Your task to perform on an android device: Search for the best selling video games at Target Image 0: 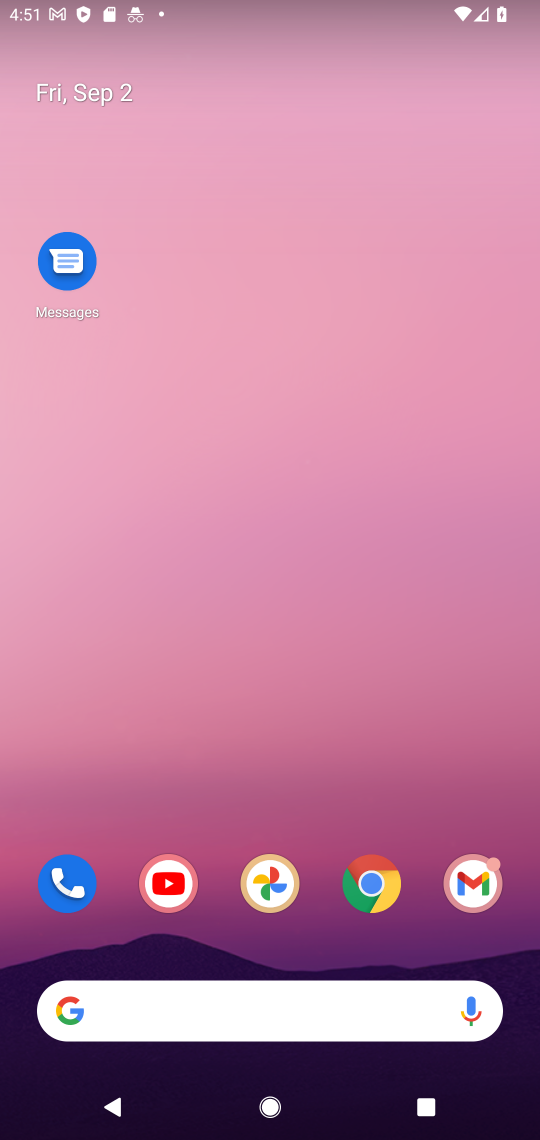
Step 0: drag from (238, 779) to (87, 0)
Your task to perform on an android device: Search for the best selling video games at Target Image 1: 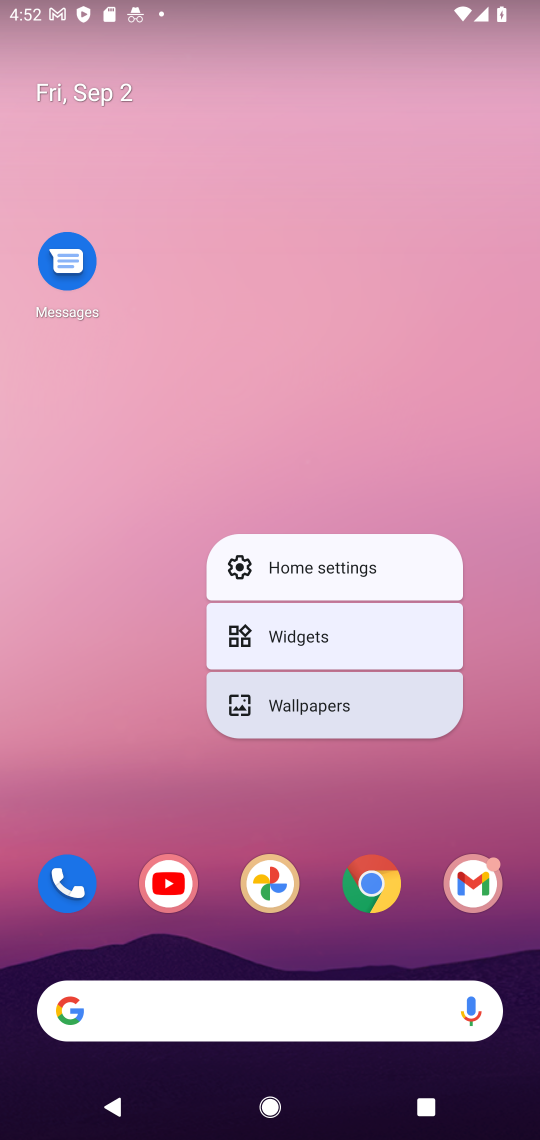
Step 1: drag from (60, 666) to (414, 26)
Your task to perform on an android device: Search for the best selling video games at Target Image 2: 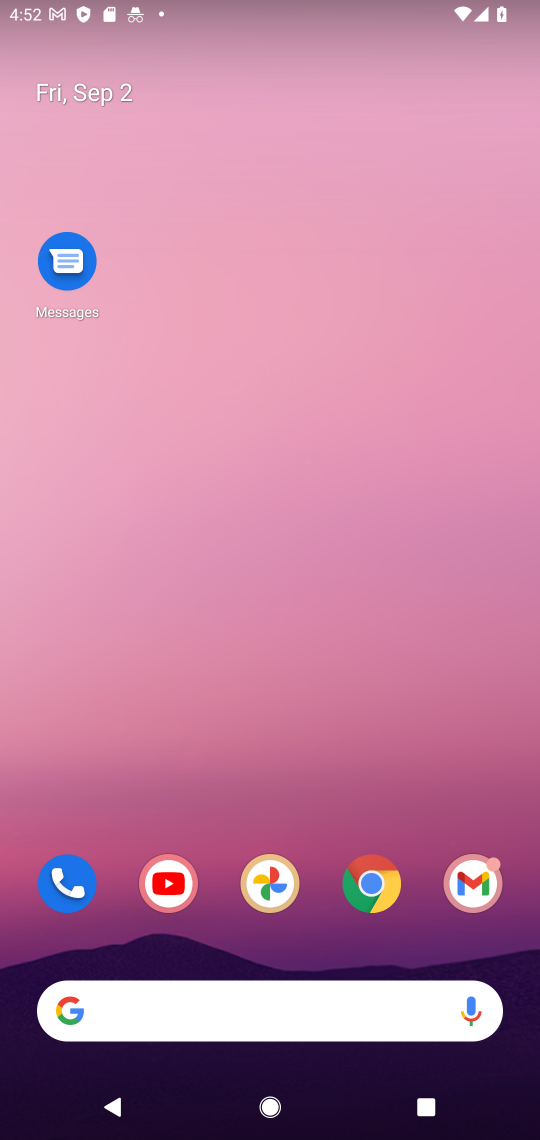
Step 2: drag from (169, 438) to (414, 0)
Your task to perform on an android device: Search for the best selling video games at Target Image 3: 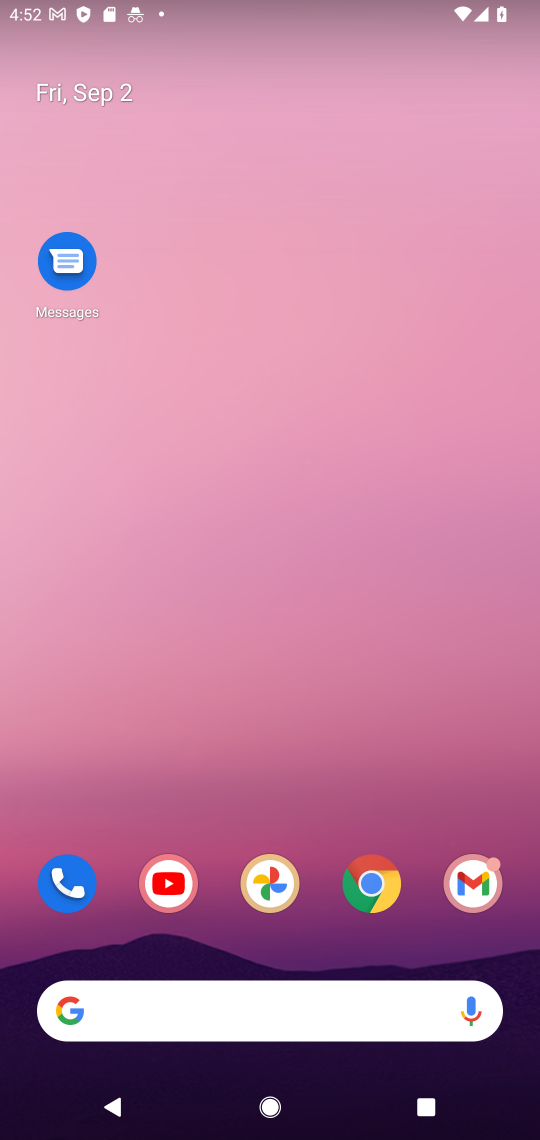
Step 3: click (357, 891)
Your task to perform on an android device: Search for the best selling video games at Target Image 4: 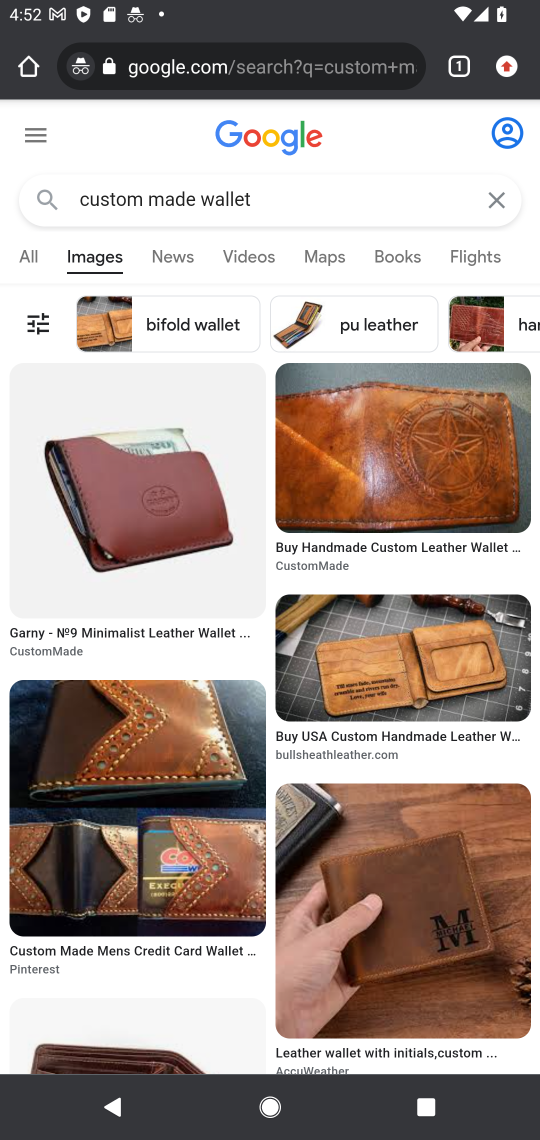
Step 4: drag from (390, 237) to (399, 0)
Your task to perform on an android device: Search for the best selling video games at Target Image 5: 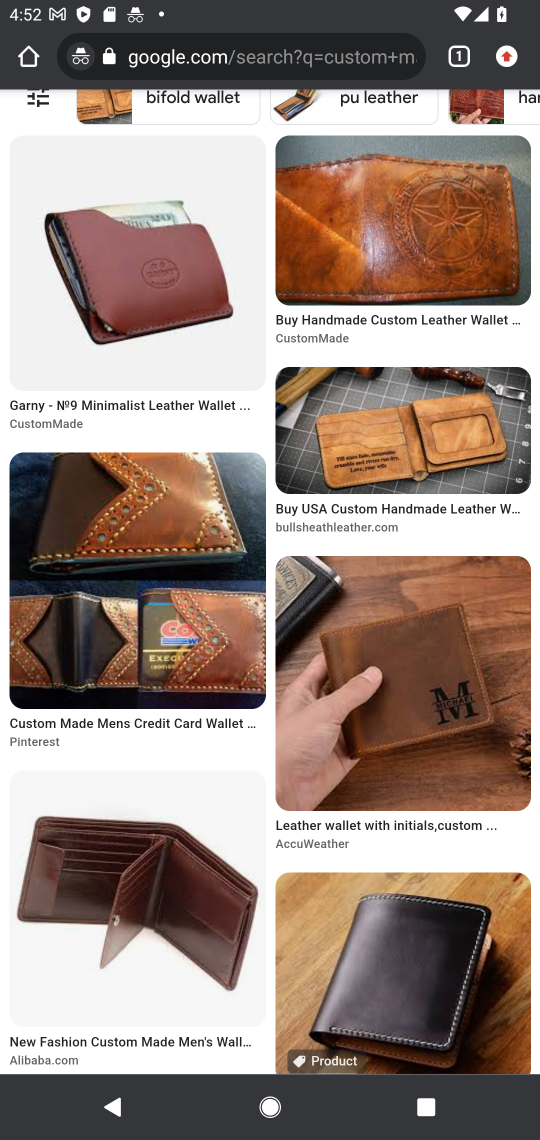
Step 5: click (210, 60)
Your task to perform on an android device: Search for the best selling video games at Target Image 6: 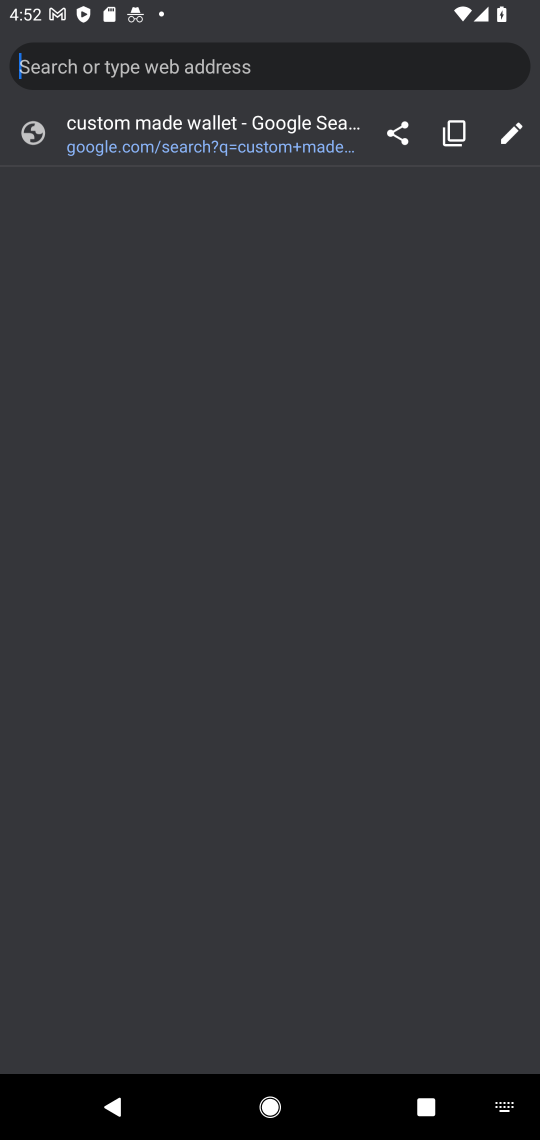
Step 6: drag from (264, 71) to (325, 59)
Your task to perform on an android device: Search for the best selling video games at Target Image 7: 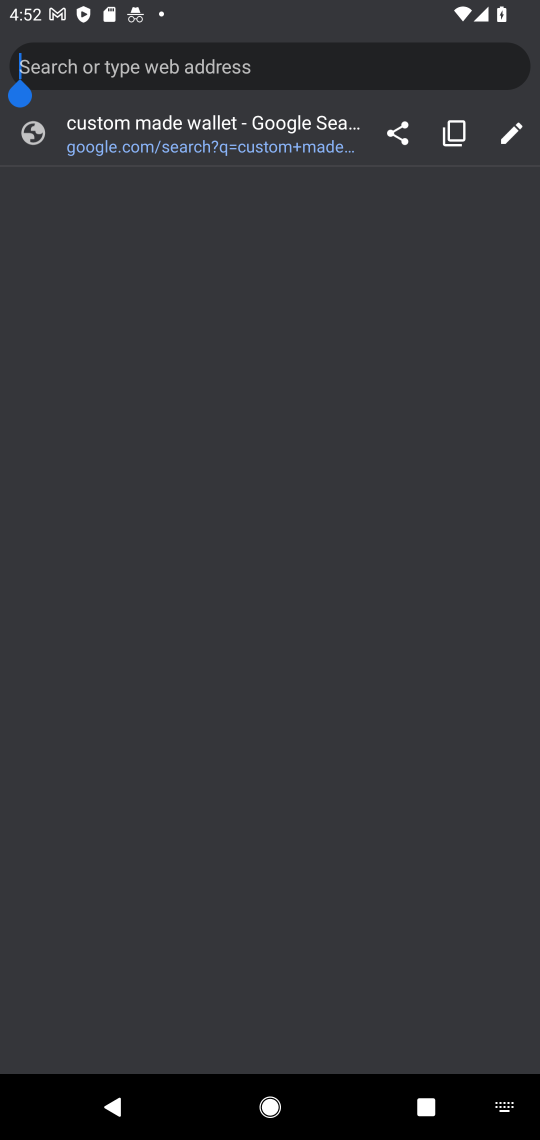
Step 7: type "Target"
Your task to perform on an android device: Search for the best selling video games at Target Image 8: 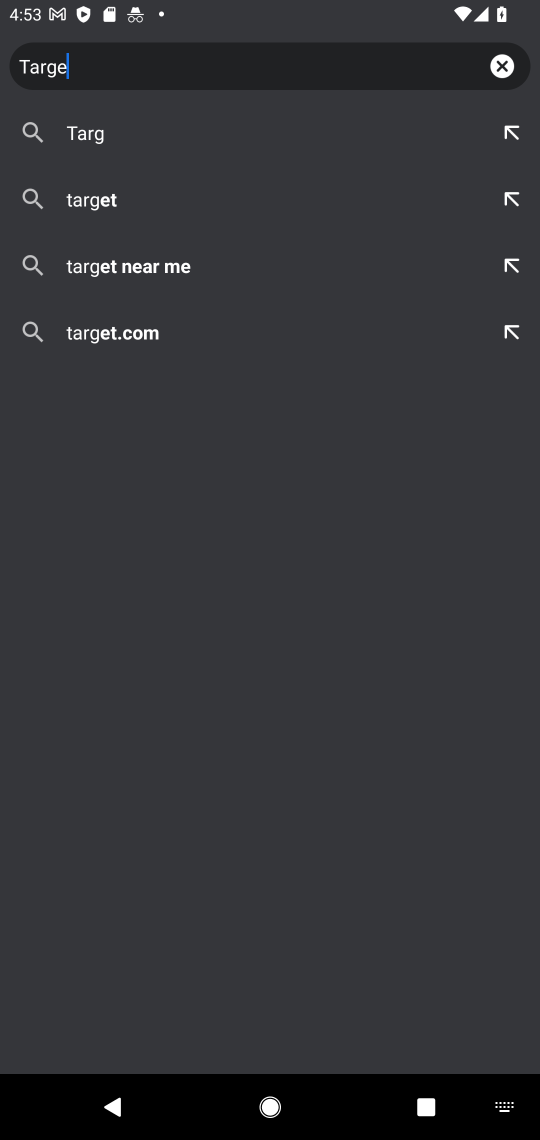
Step 8: press enter
Your task to perform on an android device: Search for the best selling video games at Target Image 9: 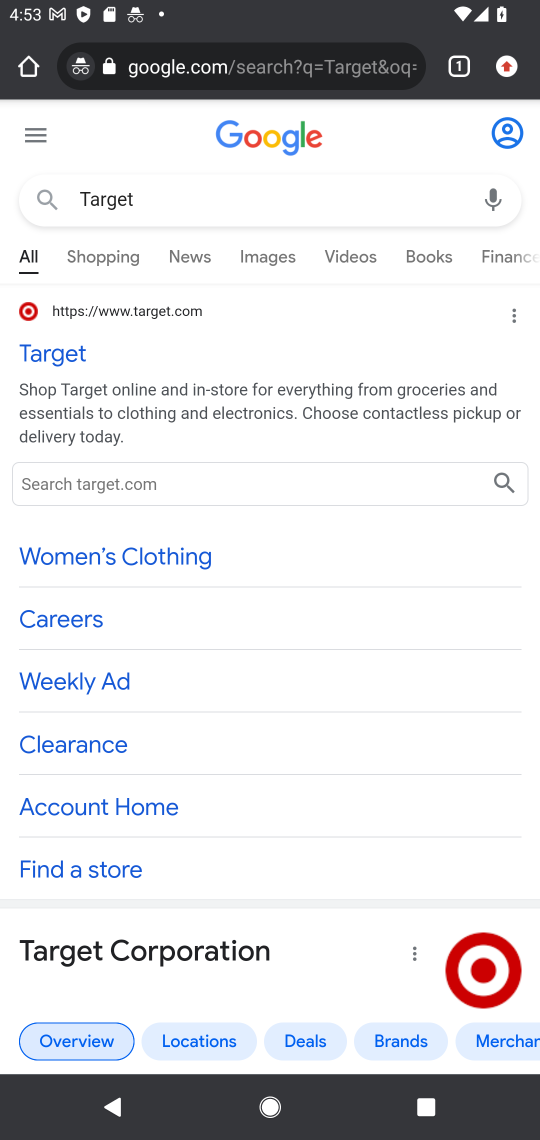
Step 9: click (47, 355)
Your task to perform on an android device: Search for the best selling video games at Target Image 10: 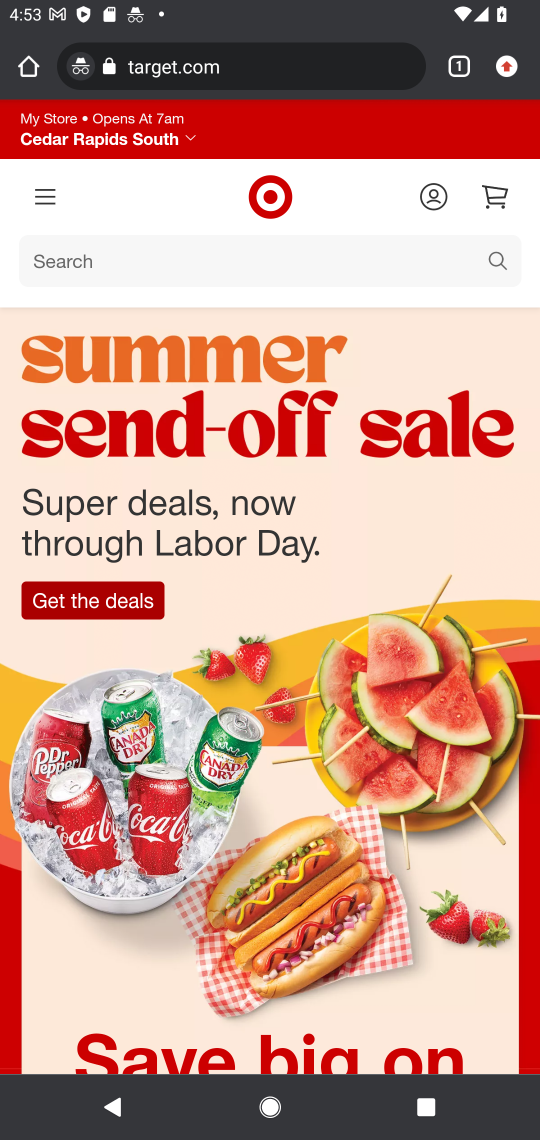
Step 10: click (135, 263)
Your task to perform on an android device: Search for the best selling video games at Target Image 11: 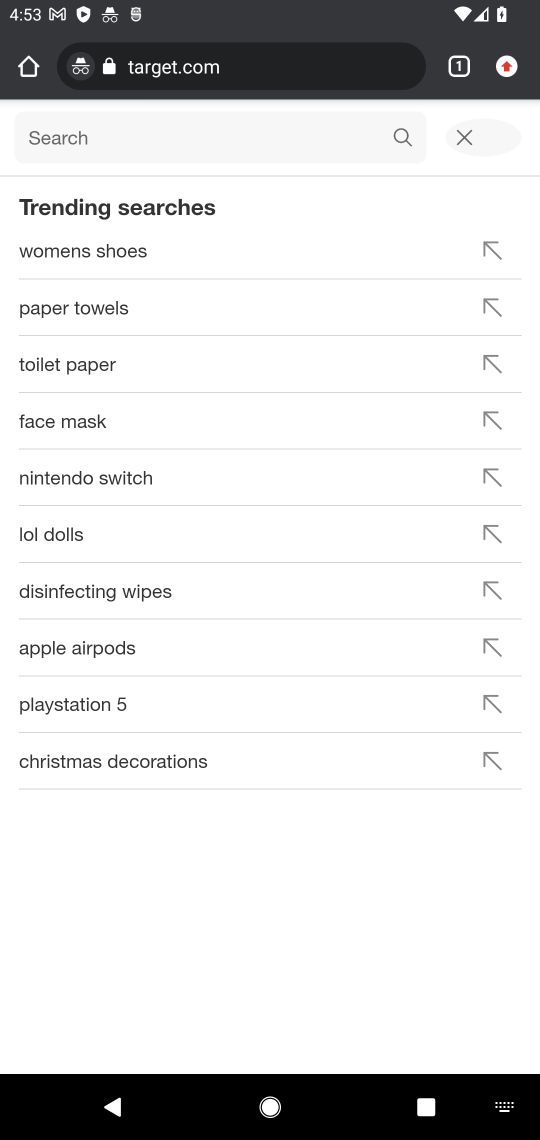
Step 11: press enter
Your task to perform on an android device: Search for the best selling video games at Target Image 12: 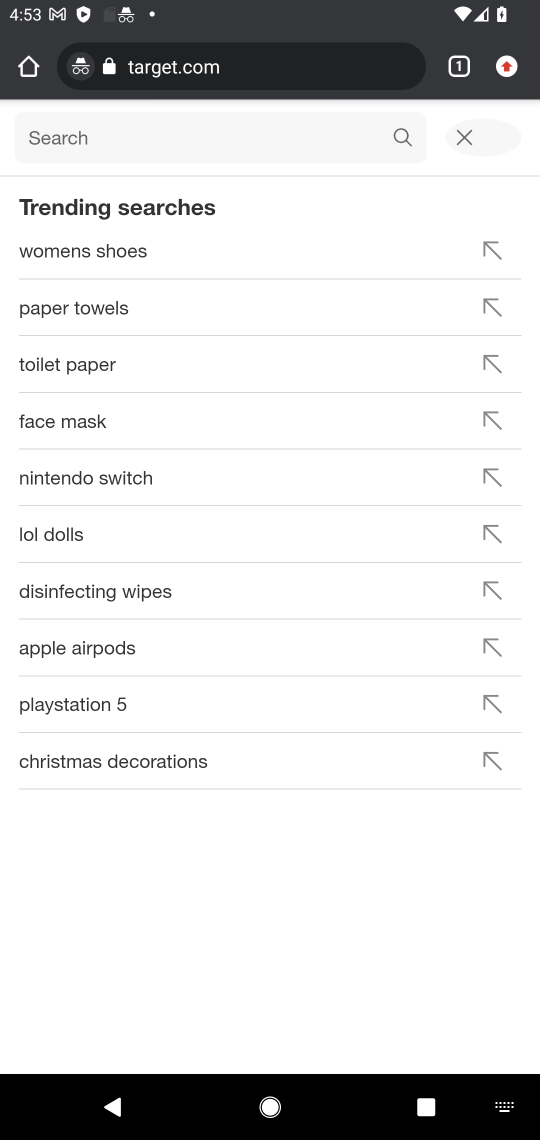
Step 12: type "best selling video games"
Your task to perform on an android device: Search for the best selling video games at Target Image 13: 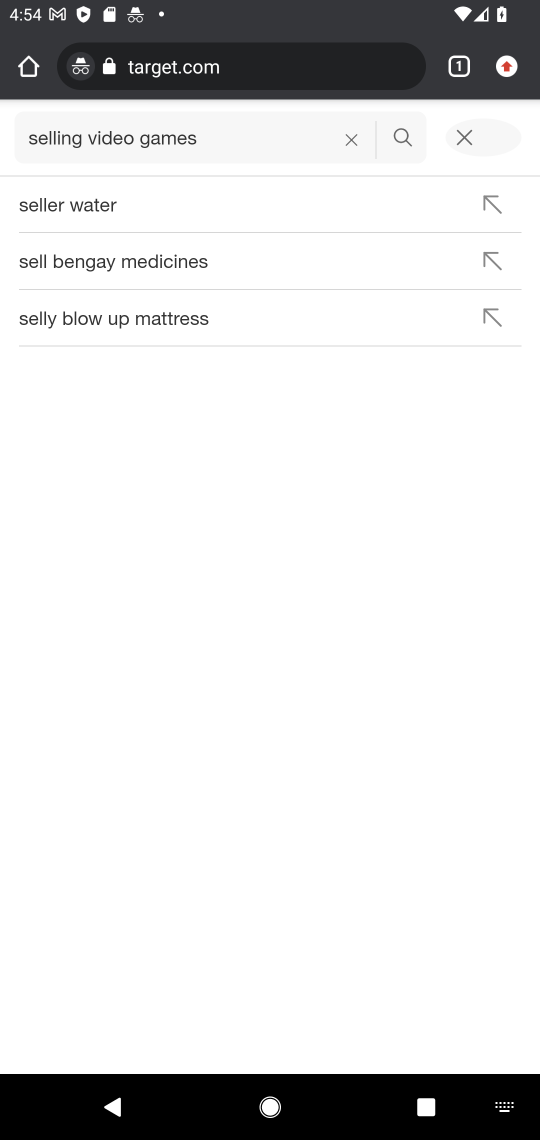
Step 13: press enter
Your task to perform on an android device: Search for the best selling video games at Target Image 14: 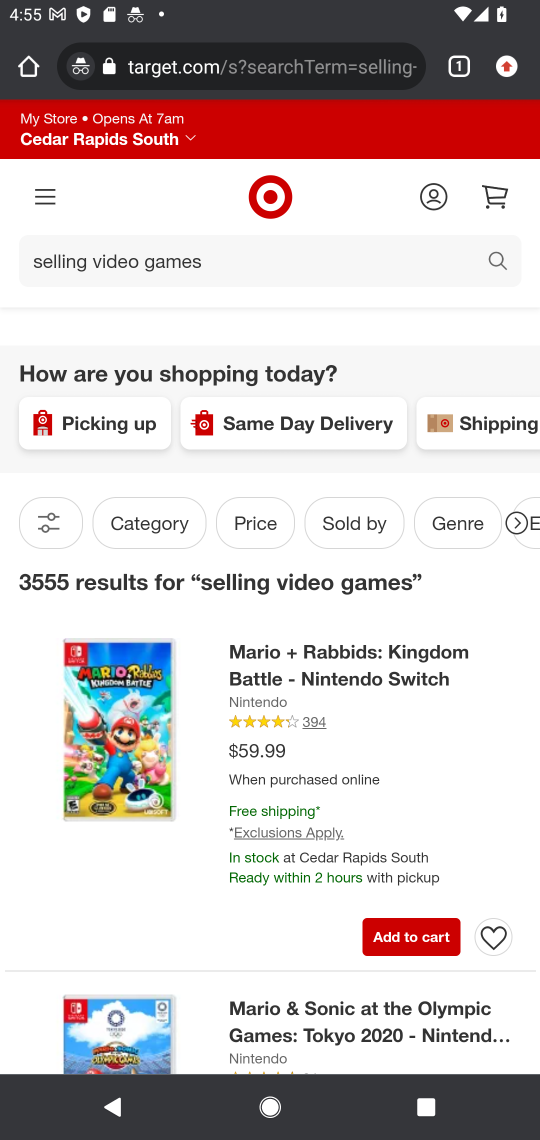
Step 14: task complete